Your task to perform on an android device: Check the weather Image 0: 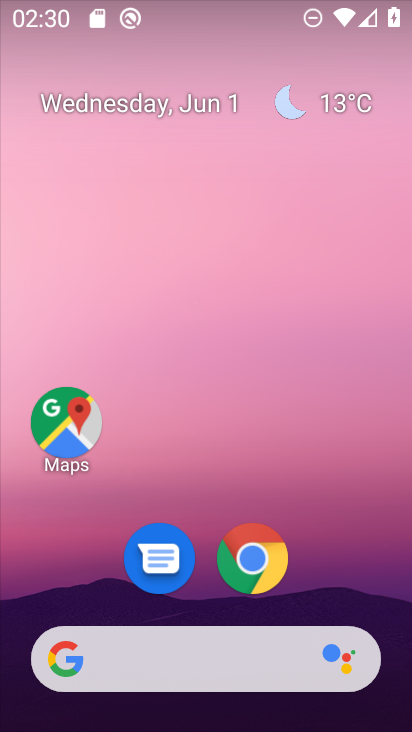
Step 0: click (345, 97)
Your task to perform on an android device: Check the weather Image 1: 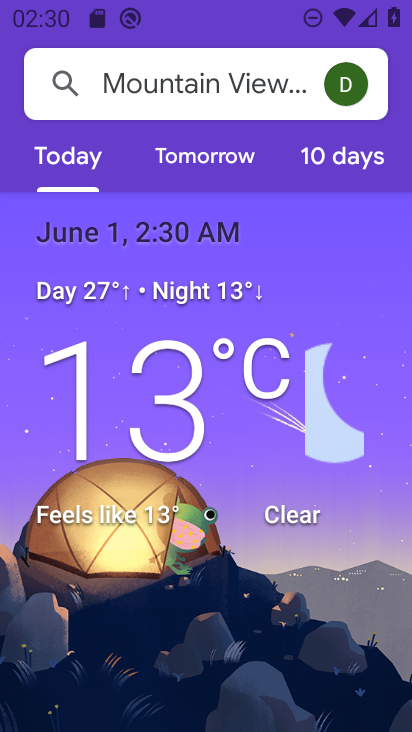
Step 1: task complete